Your task to perform on an android device: set the stopwatch Image 0: 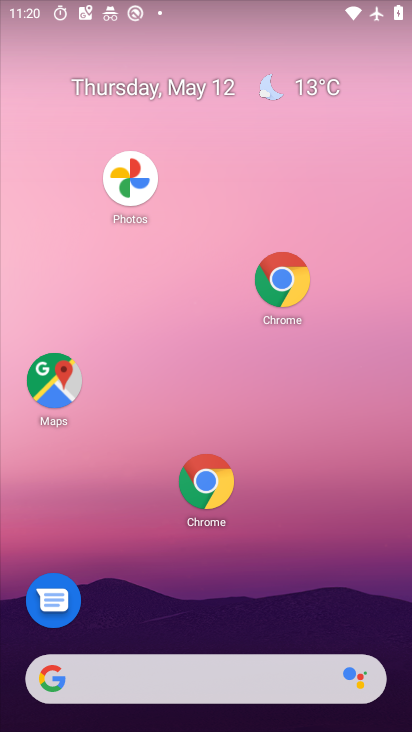
Step 0: drag from (276, 681) to (218, 144)
Your task to perform on an android device: set the stopwatch Image 1: 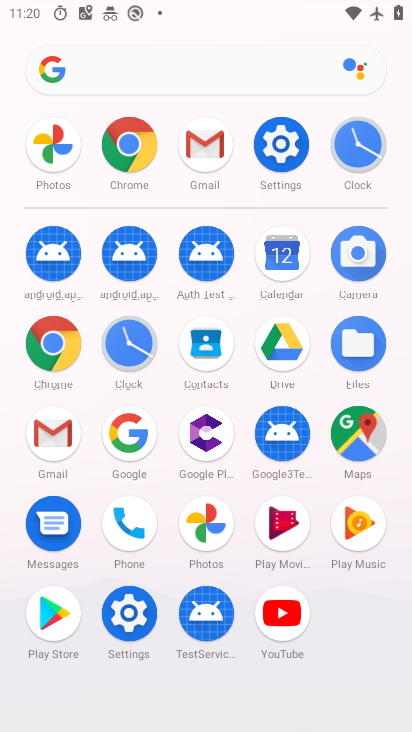
Step 1: click (352, 145)
Your task to perform on an android device: set the stopwatch Image 2: 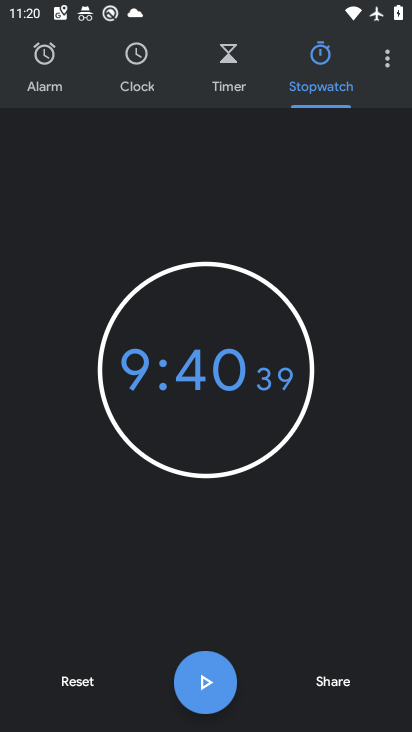
Step 2: click (199, 675)
Your task to perform on an android device: set the stopwatch Image 3: 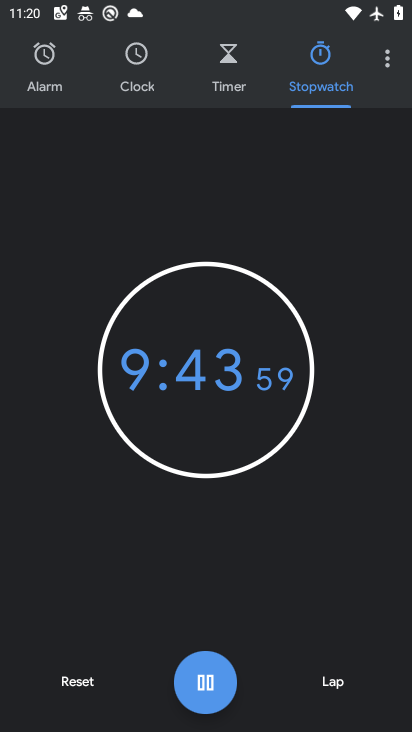
Step 3: click (209, 677)
Your task to perform on an android device: set the stopwatch Image 4: 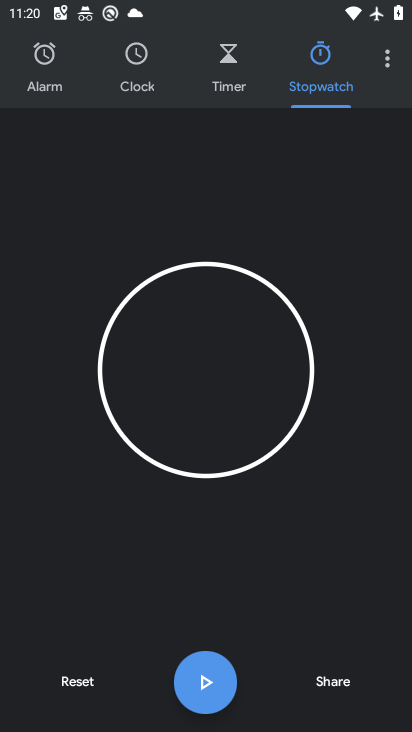
Step 4: task complete